Your task to perform on an android device: find which apps use the phone's location Image 0: 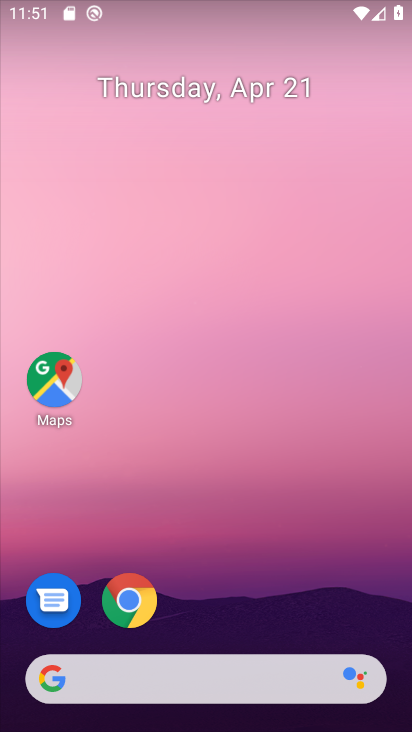
Step 0: drag from (398, 629) to (385, 110)
Your task to perform on an android device: find which apps use the phone's location Image 1: 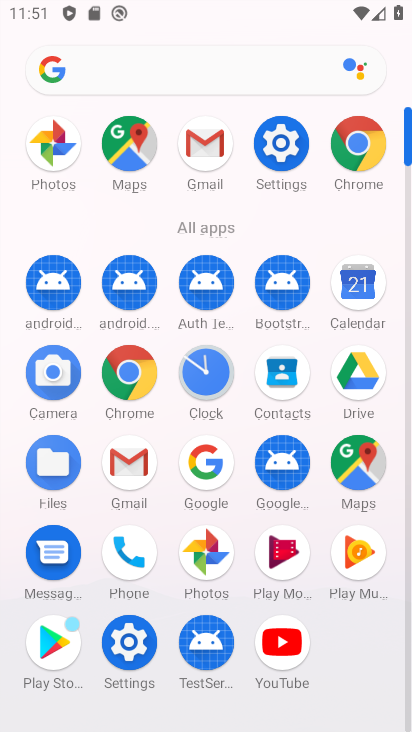
Step 1: click (278, 148)
Your task to perform on an android device: find which apps use the phone's location Image 2: 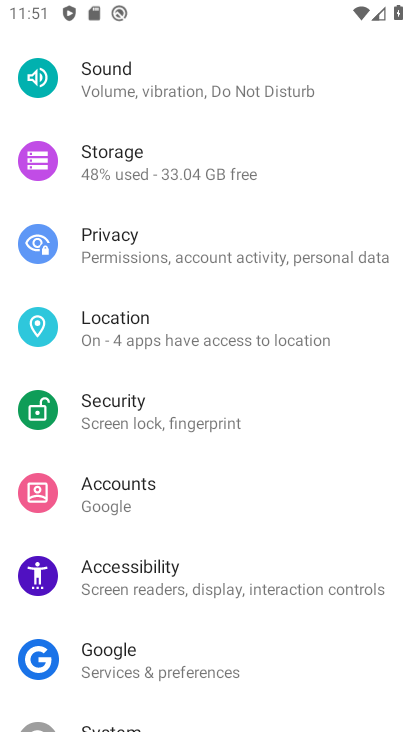
Step 2: click (107, 321)
Your task to perform on an android device: find which apps use the phone's location Image 3: 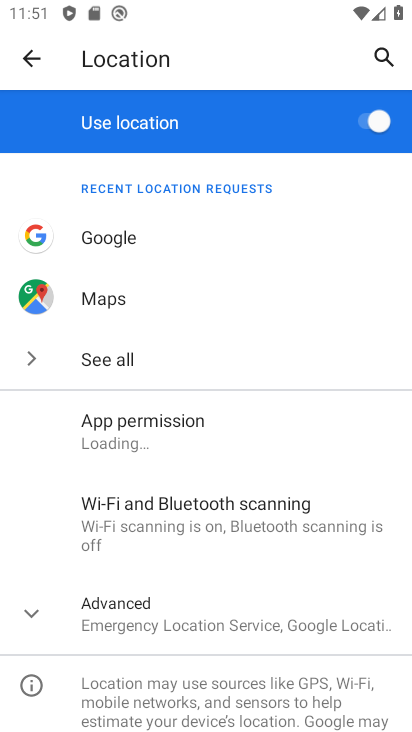
Step 3: drag from (269, 687) to (268, 338)
Your task to perform on an android device: find which apps use the phone's location Image 4: 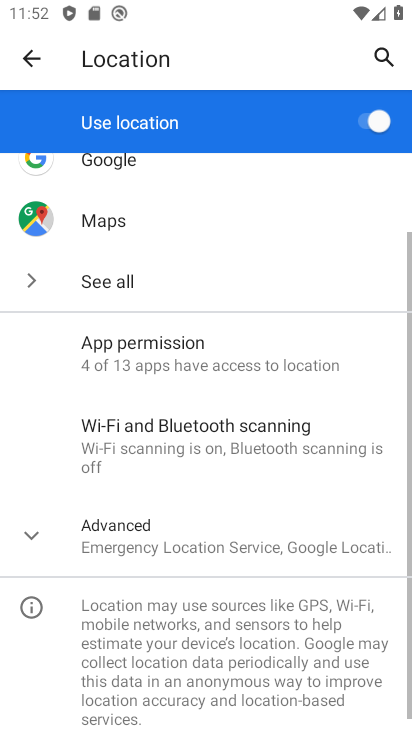
Step 4: drag from (303, 375) to (313, 293)
Your task to perform on an android device: find which apps use the phone's location Image 5: 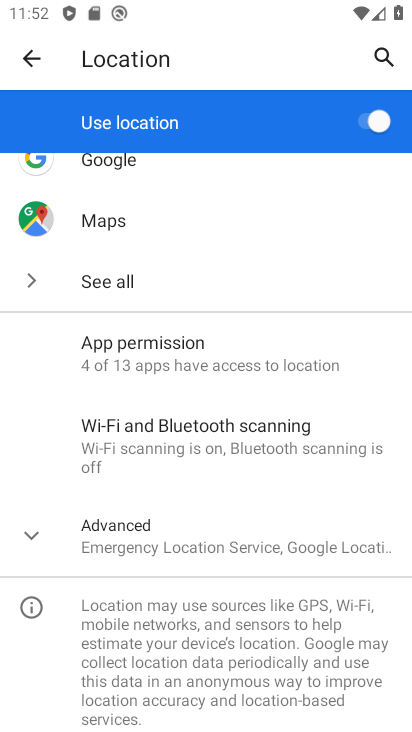
Step 5: click (18, 536)
Your task to perform on an android device: find which apps use the phone's location Image 6: 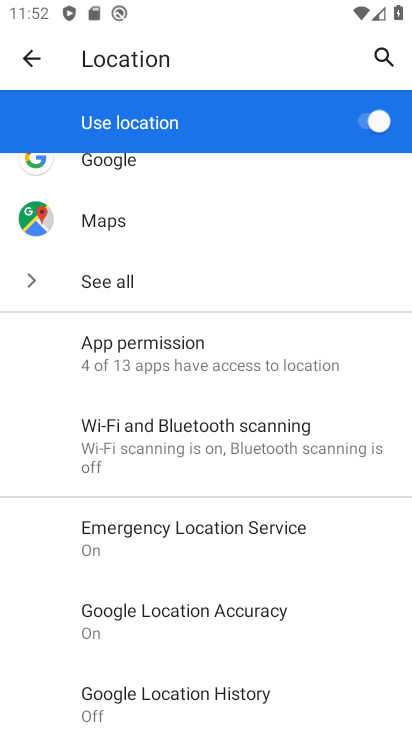
Step 6: drag from (320, 675) to (328, 375)
Your task to perform on an android device: find which apps use the phone's location Image 7: 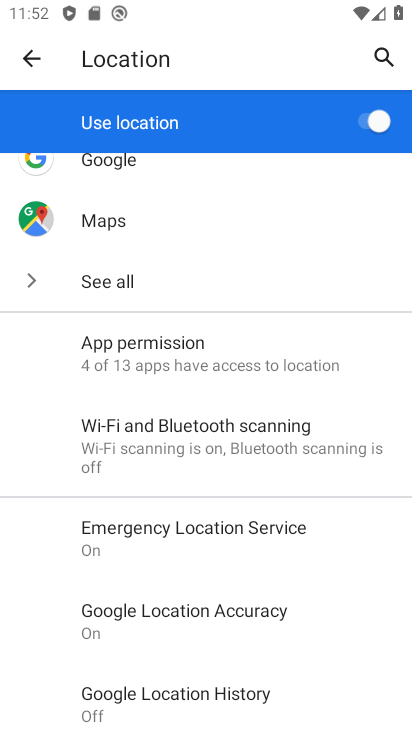
Step 7: drag from (356, 634) to (359, 496)
Your task to perform on an android device: find which apps use the phone's location Image 8: 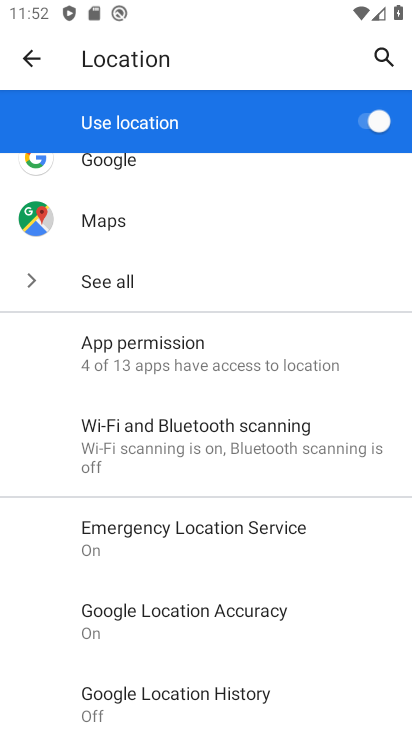
Step 8: drag from (331, 689) to (360, 356)
Your task to perform on an android device: find which apps use the phone's location Image 9: 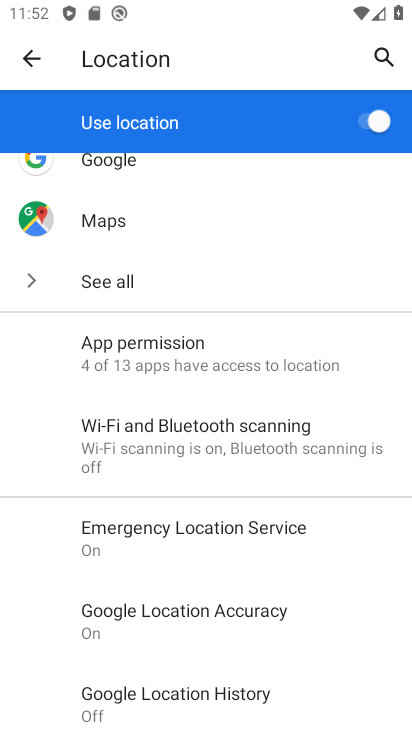
Step 9: click (102, 349)
Your task to perform on an android device: find which apps use the phone's location Image 10: 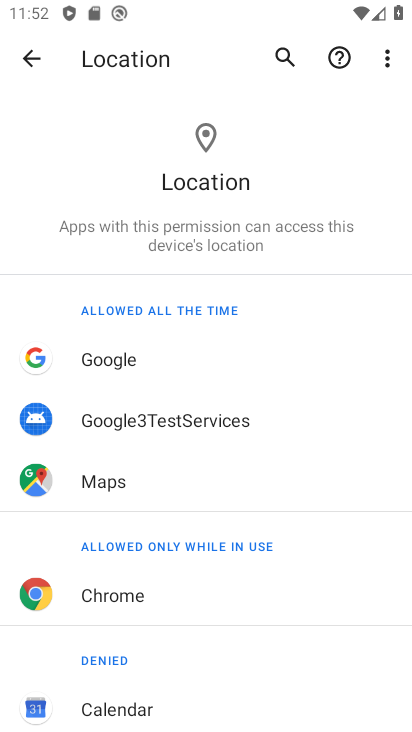
Step 10: task complete